Your task to perform on an android device: Open Google Maps Image 0: 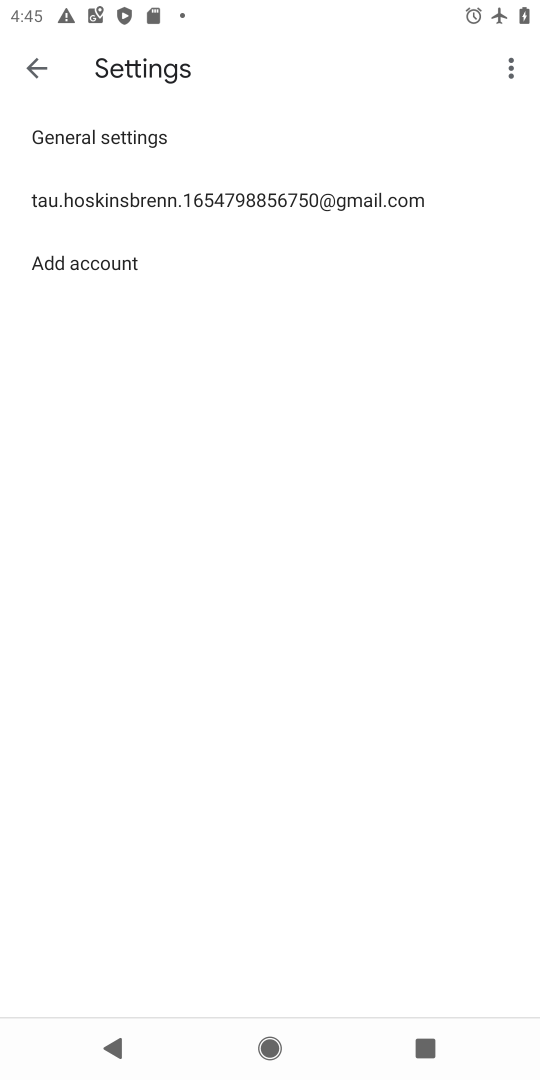
Step 0: press home button
Your task to perform on an android device: Open Google Maps Image 1: 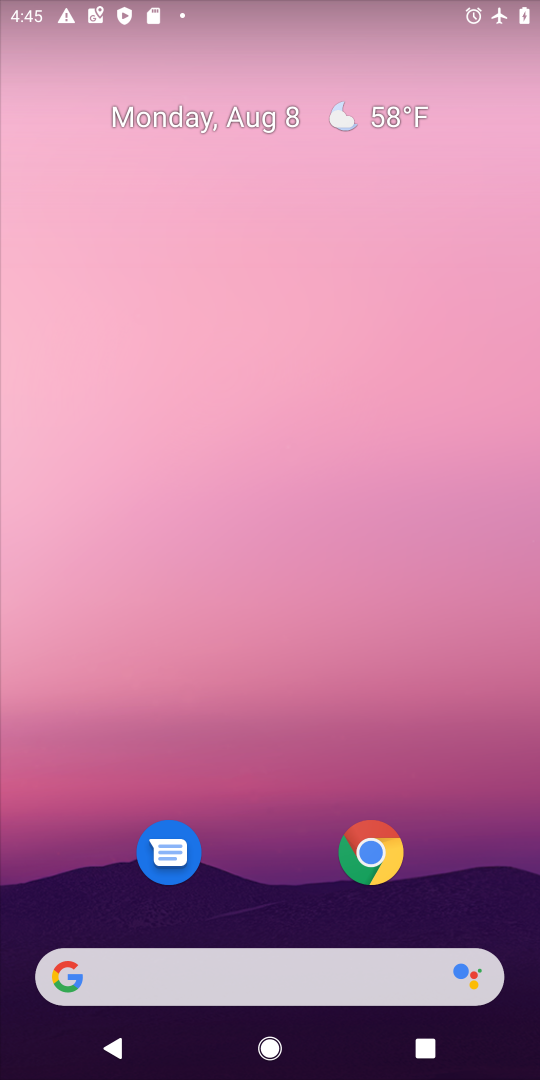
Step 1: drag from (261, 772) to (312, 145)
Your task to perform on an android device: Open Google Maps Image 2: 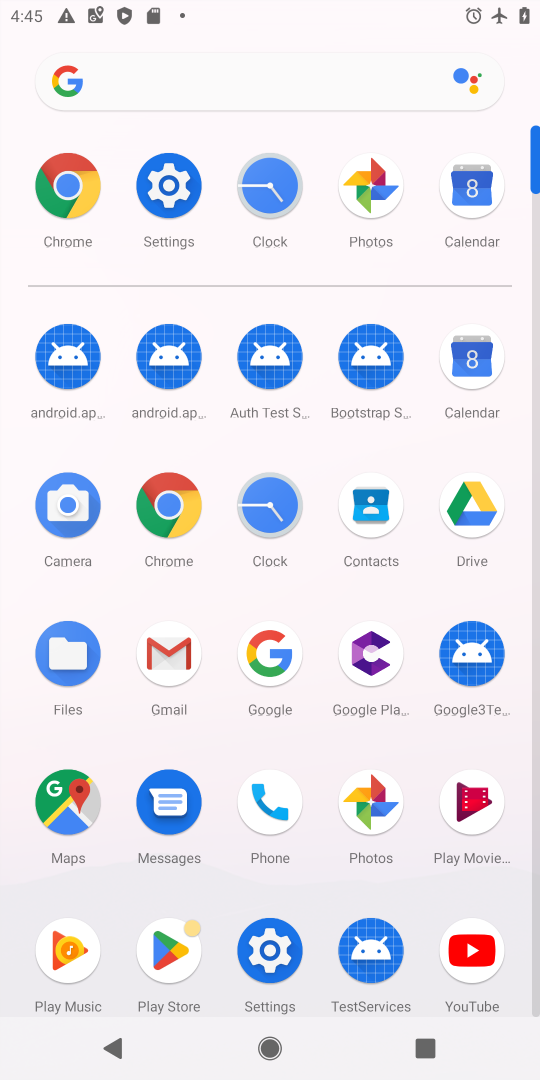
Step 2: click (70, 806)
Your task to perform on an android device: Open Google Maps Image 3: 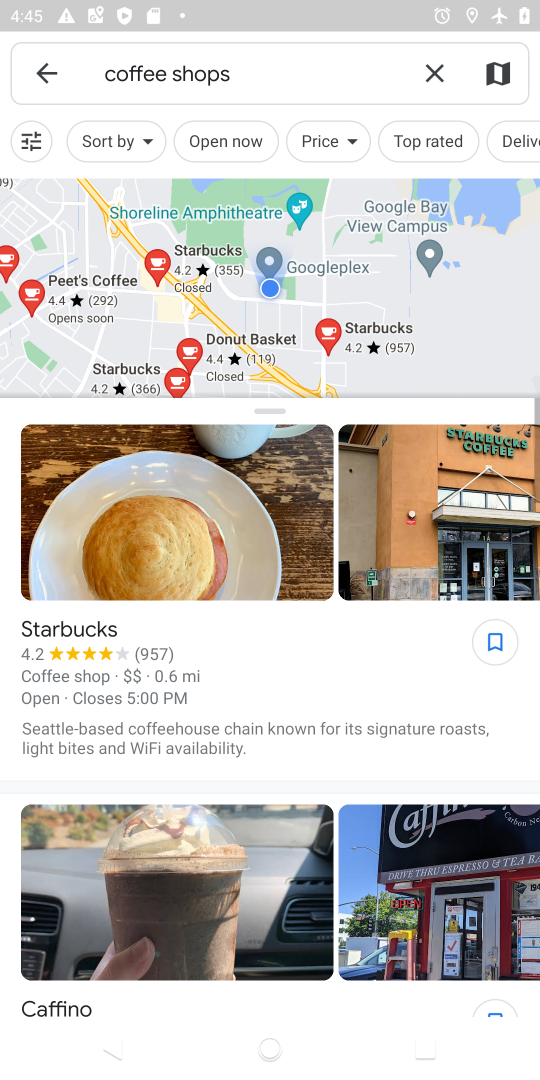
Step 3: task complete